Your task to perform on an android device: Open Youtube and go to the subscriptions tab Image 0: 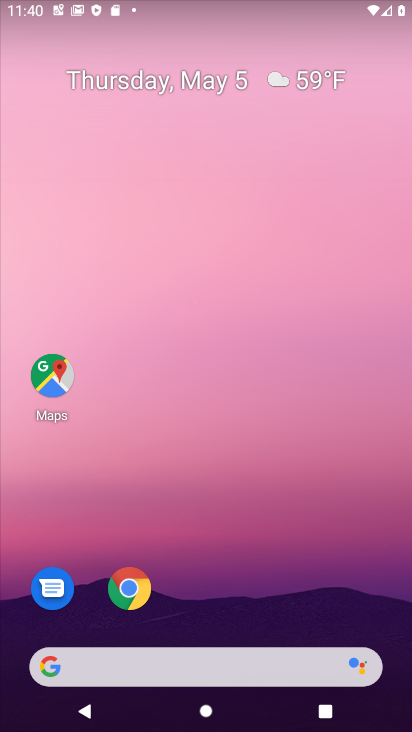
Step 0: drag from (142, 667) to (296, 147)
Your task to perform on an android device: Open Youtube and go to the subscriptions tab Image 1: 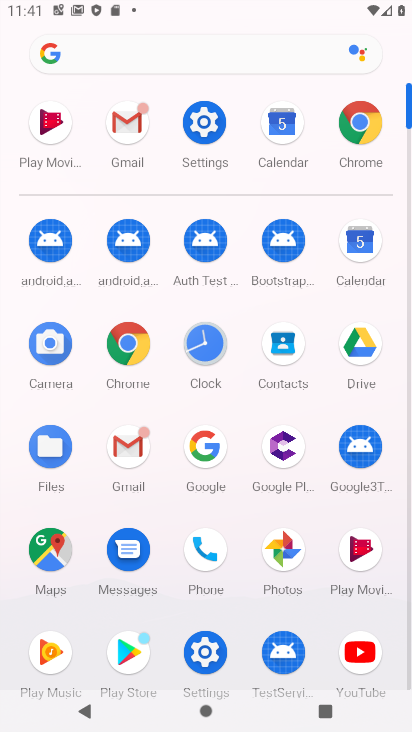
Step 1: click (365, 657)
Your task to perform on an android device: Open Youtube and go to the subscriptions tab Image 2: 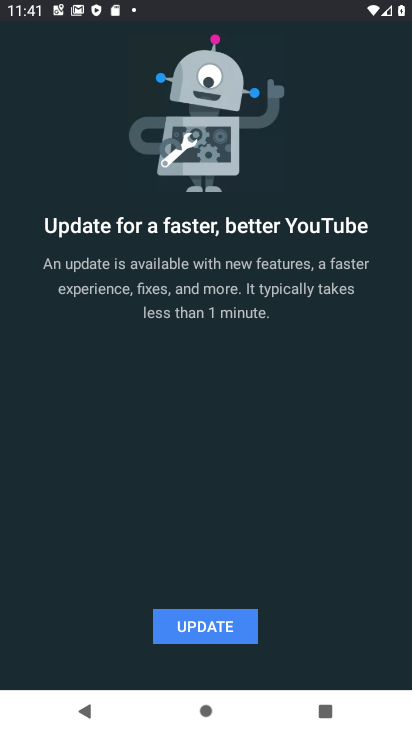
Step 2: click (212, 628)
Your task to perform on an android device: Open Youtube and go to the subscriptions tab Image 3: 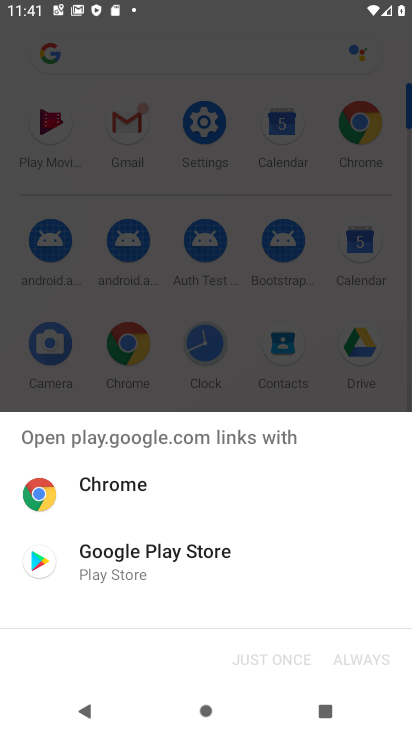
Step 3: click (36, 558)
Your task to perform on an android device: Open Youtube and go to the subscriptions tab Image 4: 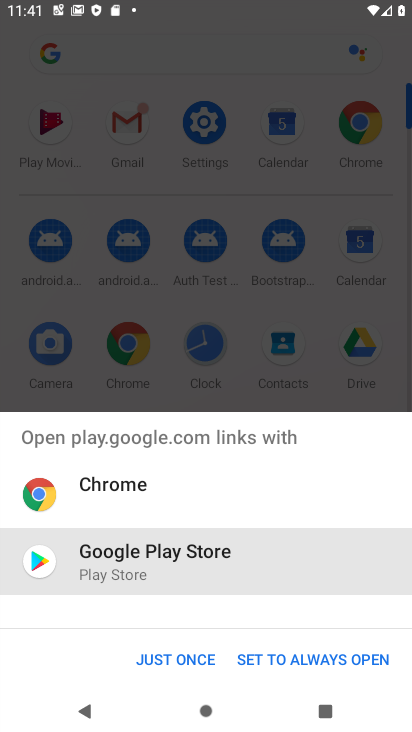
Step 4: click (182, 663)
Your task to perform on an android device: Open Youtube and go to the subscriptions tab Image 5: 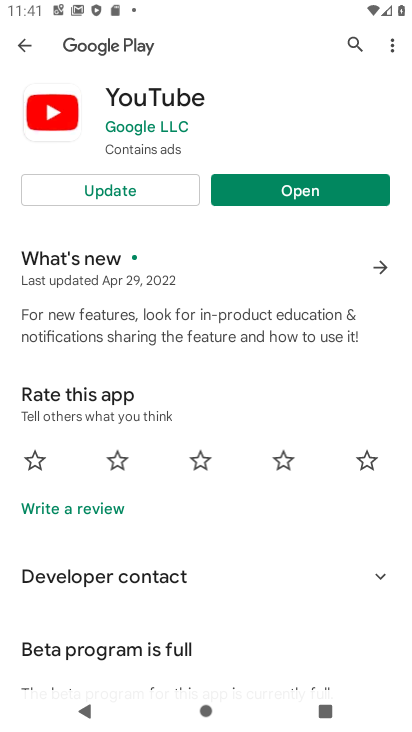
Step 5: click (297, 194)
Your task to perform on an android device: Open Youtube and go to the subscriptions tab Image 6: 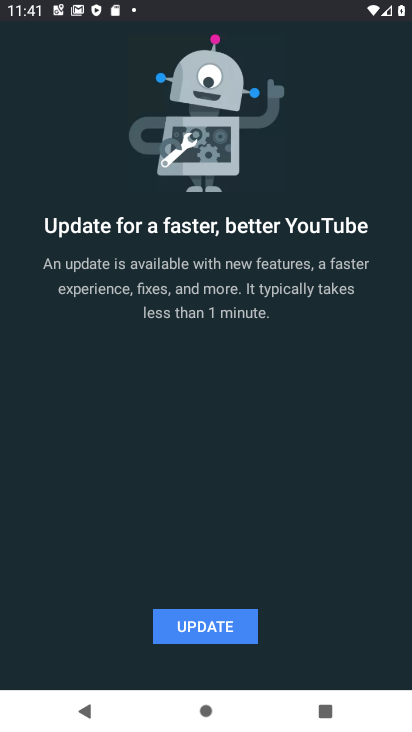
Step 6: task complete